Your task to perform on an android device: Search for the new nintendo switch on Walmart. Image 0: 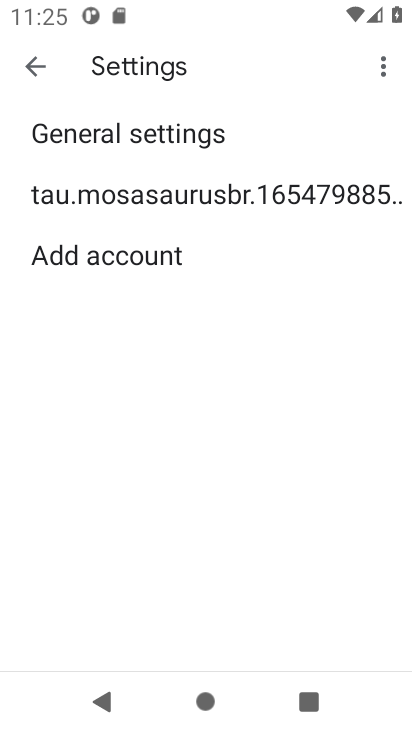
Step 0: press home button
Your task to perform on an android device: Search for the new nintendo switch on Walmart. Image 1: 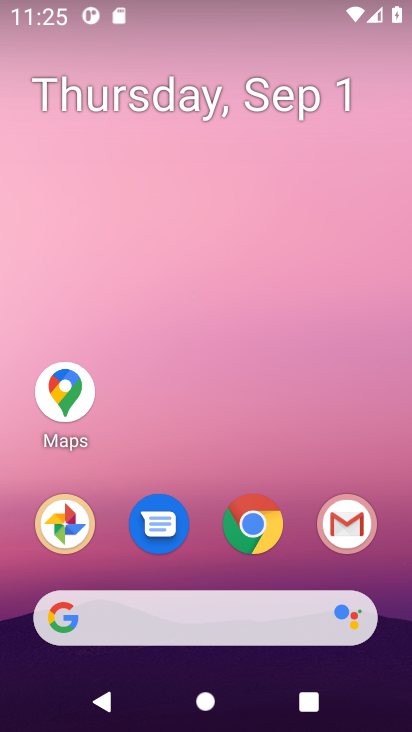
Step 1: click (240, 617)
Your task to perform on an android device: Search for the new nintendo switch on Walmart. Image 2: 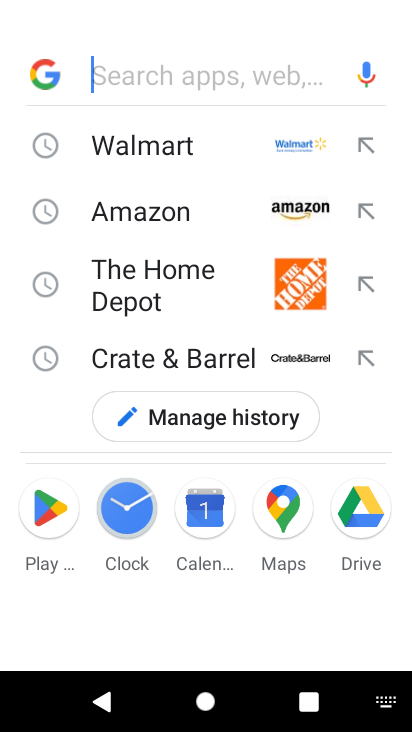
Step 2: click (160, 146)
Your task to perform on an android device: Search for the new nintendo switch on Walmart. Image 3: 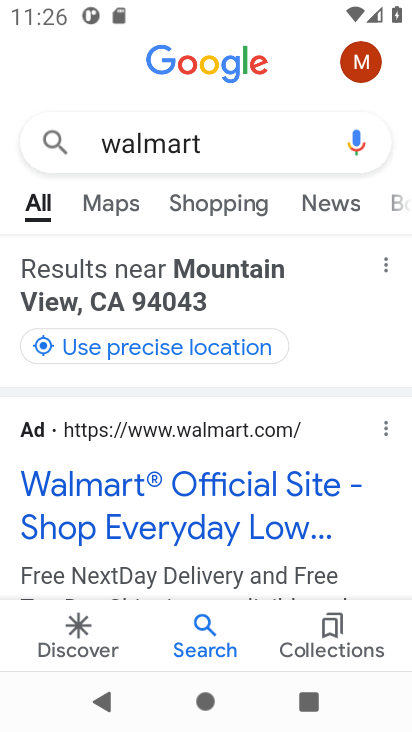
Step 3: click (256, 492)
Your task to perform on an android device: Search for the new nintendo switch on Walmart. Image 4: 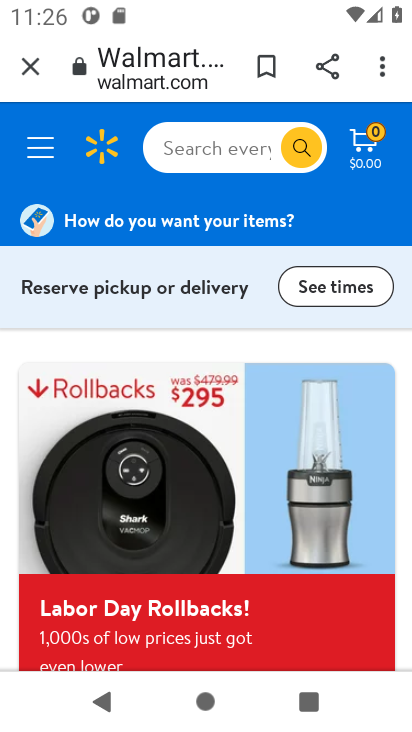
Step 4: click (224, 149)
Your task to perform on an android device: Search for the new nintendo switch on Walmart. Image 5: 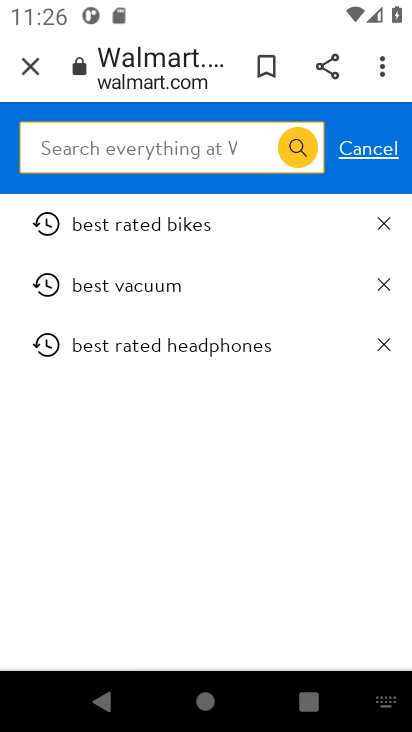
Step 5: press enter
Your task to perform on an android device: Search for the new nintendo switch on Walmart. Image 6: 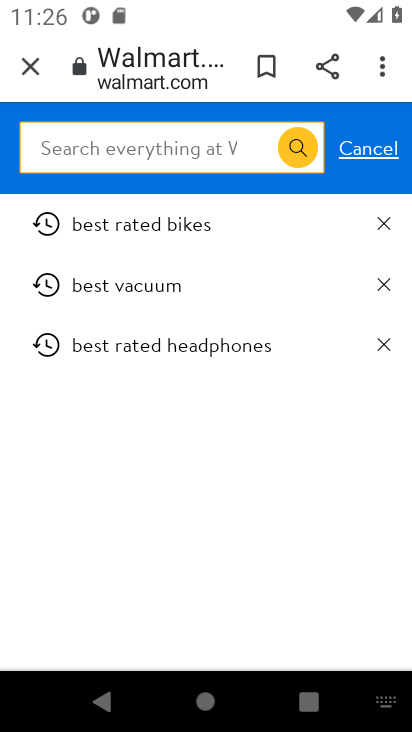
Step 6: type "nintendo switch"
Your task to perform on an android device: Search for the new nintendo switch on Walmart. Image 7: 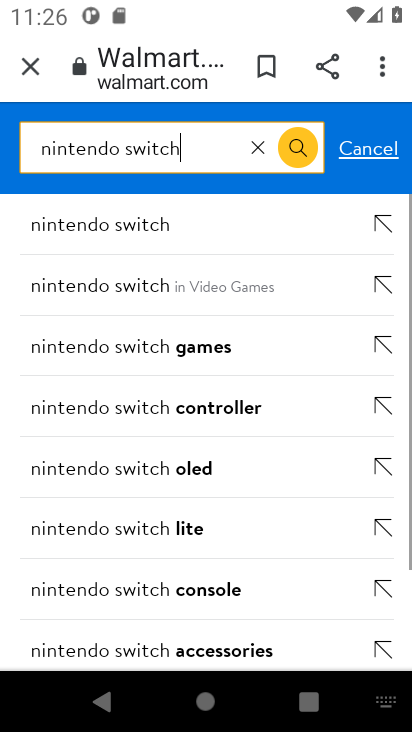
Step 7: click (192, 218)
Your task to perform on an android device: Search for the new nintendo switch on Walmart. Image 8: 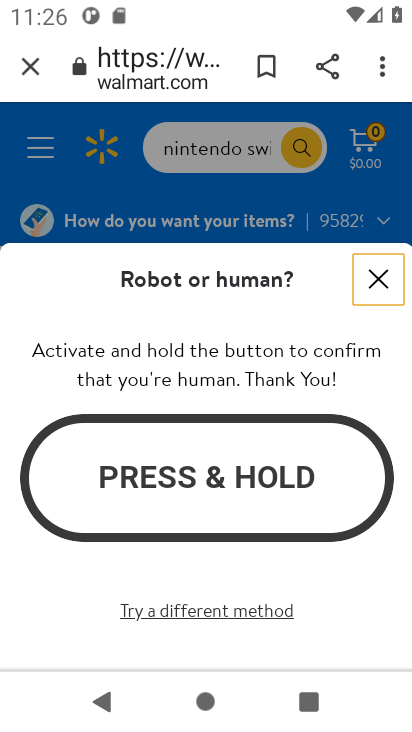
Step 8: click (384, 275)
Your task to perform on an android device: Search for the new nintendo switch on Walmart. Image 9: 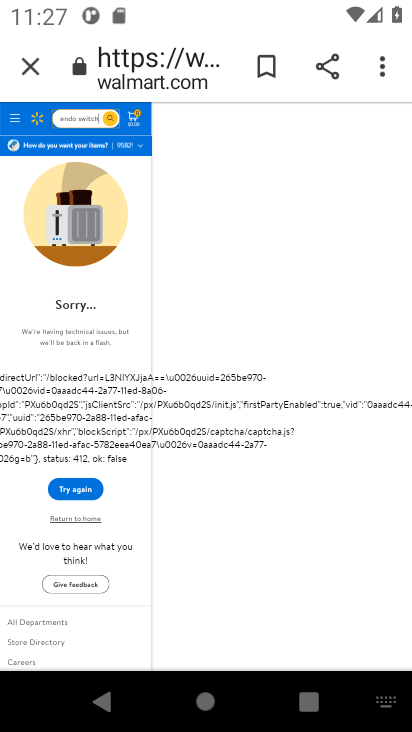
Step 9: task complete